Your task to perform on an android device: Show me the best rated coffee table on Ikea Image 0: 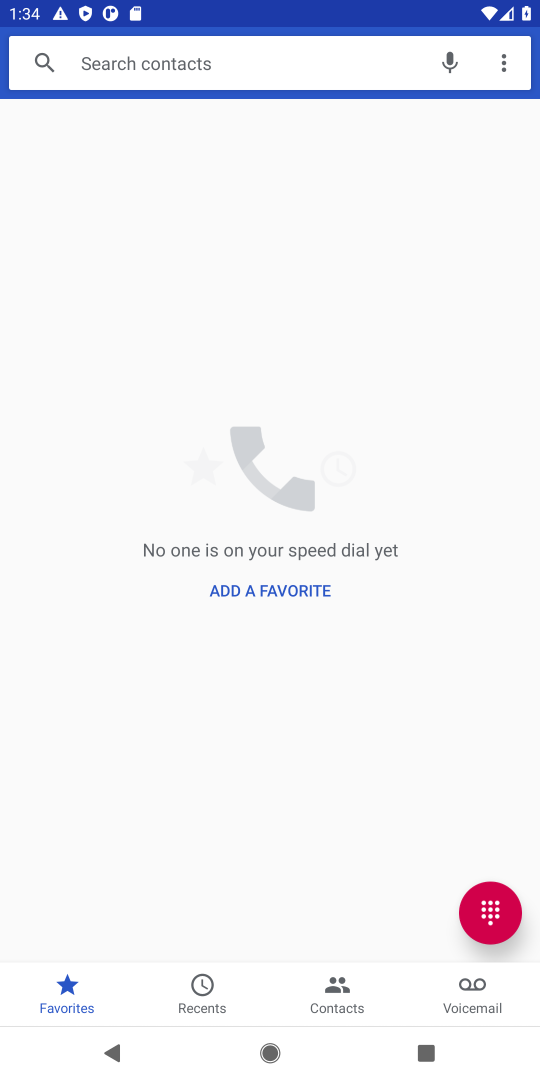
Step 0: press home button
Your task to perform on an android device: Show me the best rated coffee table on Ikea Image 1: 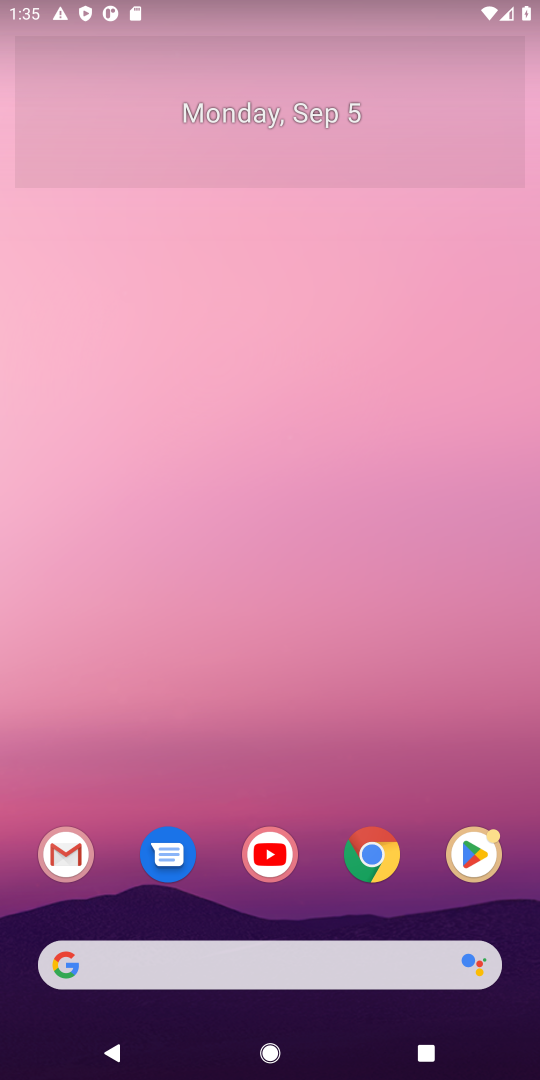
Step 1: click (362, 959)
Your task to perform on an android device: Show me the best rated coffee table on Ikea Image 2: 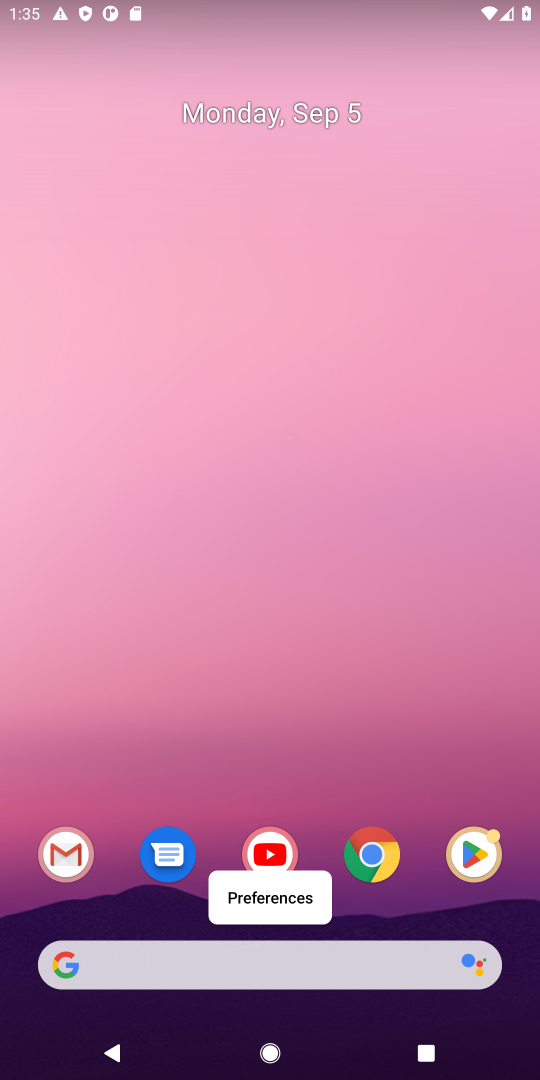
Step 2: click (226, 976)
Your task to perform on an android device: Show me the best rated coffee table on Ikea Image 3: 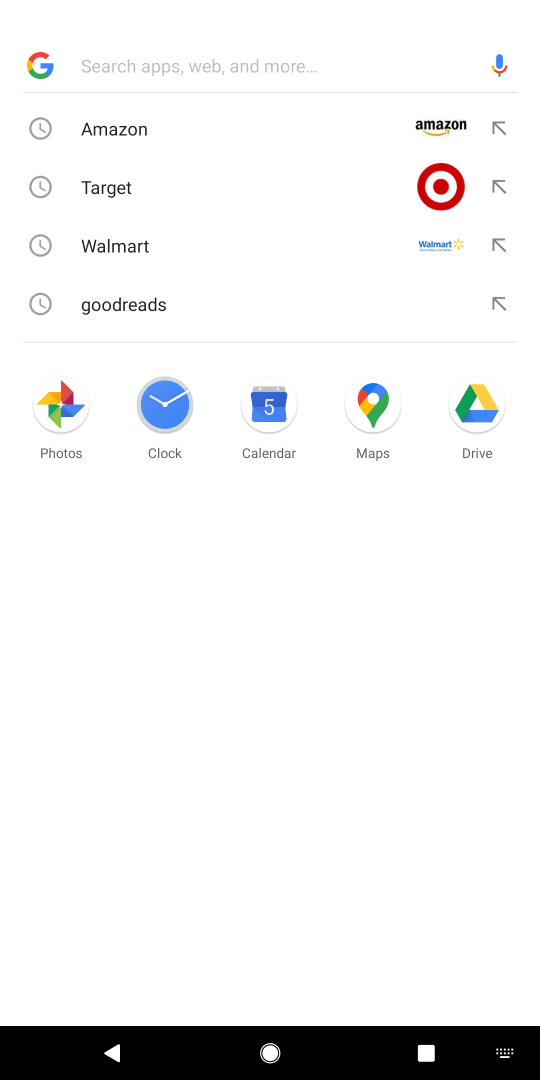
Step 3: type "ikea"
Your task to perform on an android device: Show me the best rated coffee table on Ikea Image 4: 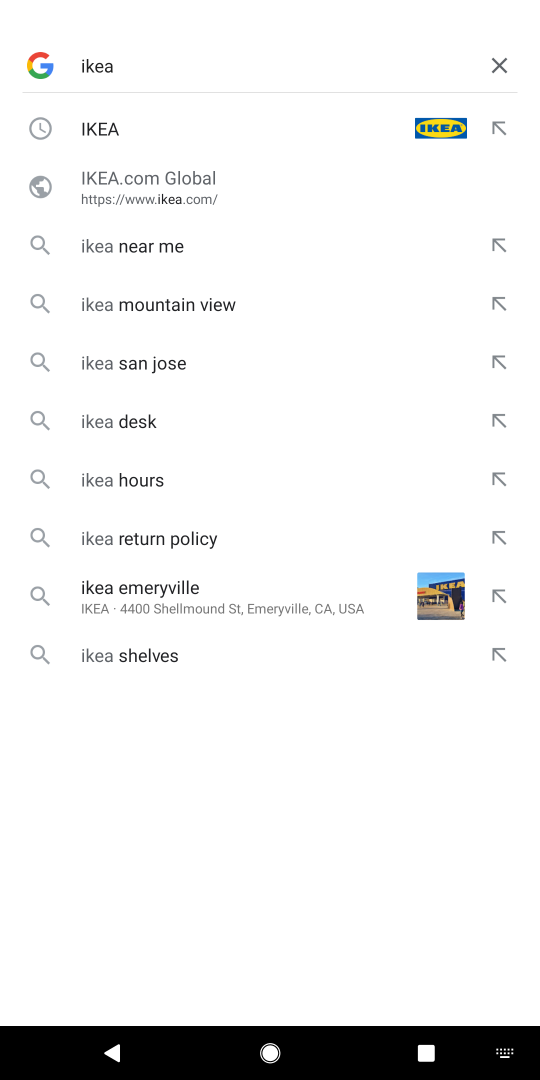
Step 4: press enter
Your task to perform on an android device: Show me the best rated coffee table on Ikea Image 5: 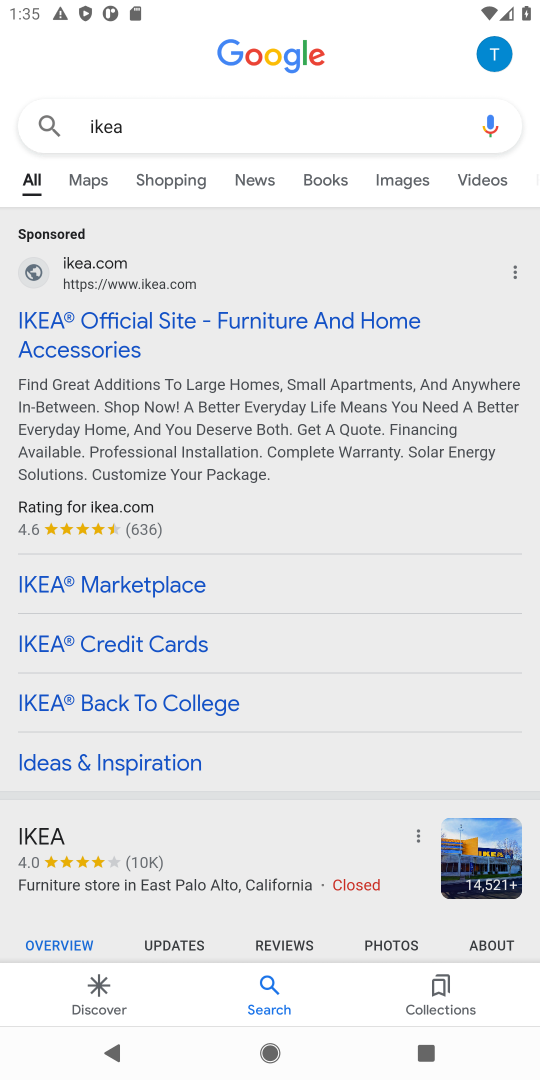
Step 5: click (171, 325)
Your task to perform on an android device: Show me the best rated coffee table on Ikea Image 6: 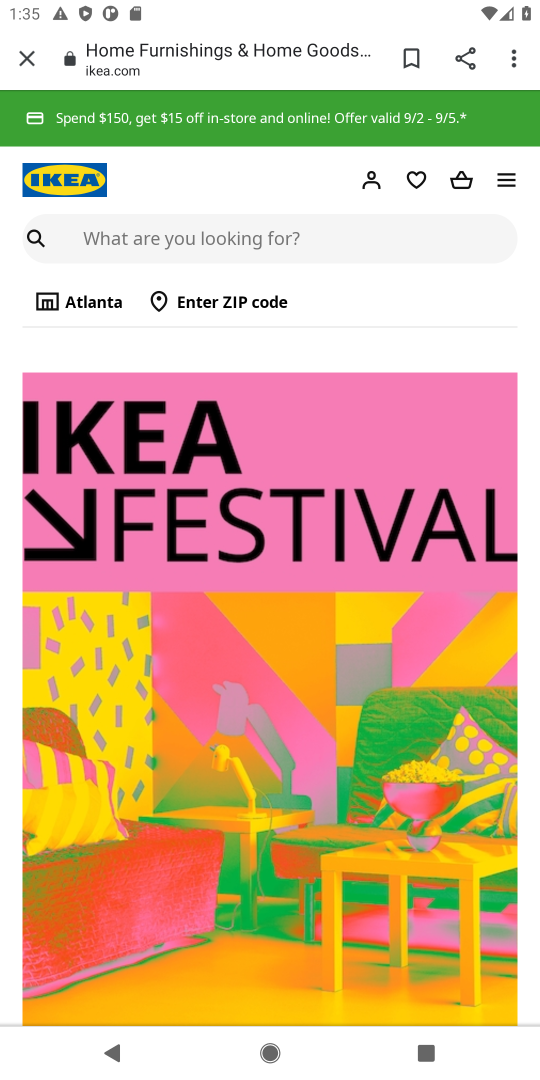
Step 6: click (267, 229)
Your task to perform on an android device: Show me the best rated coffee table on Ikea Image 7: 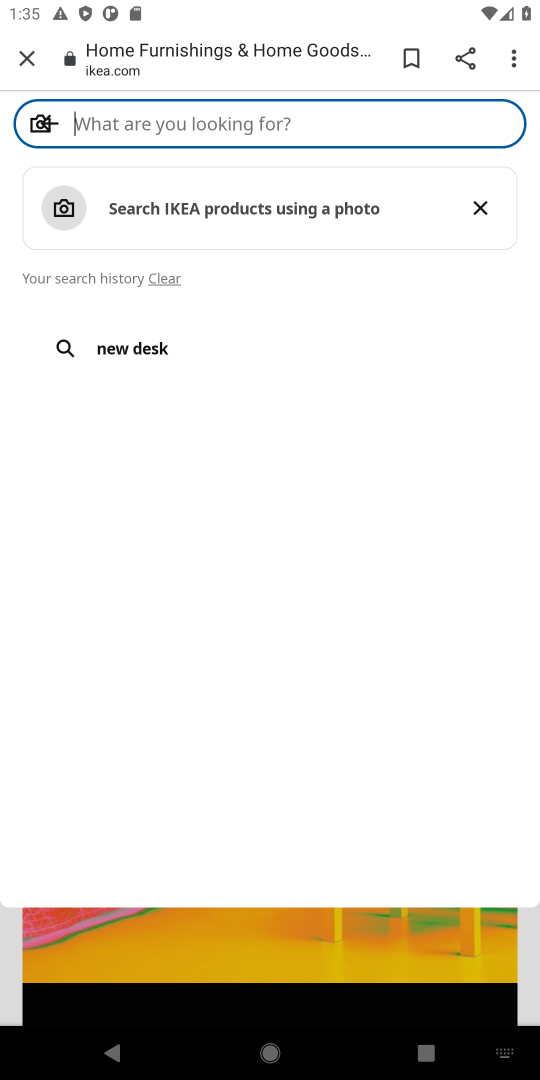
Step 7: press enter
Your task to perform on an android device: Show me the best rated coffee table on Ikea Image 8: 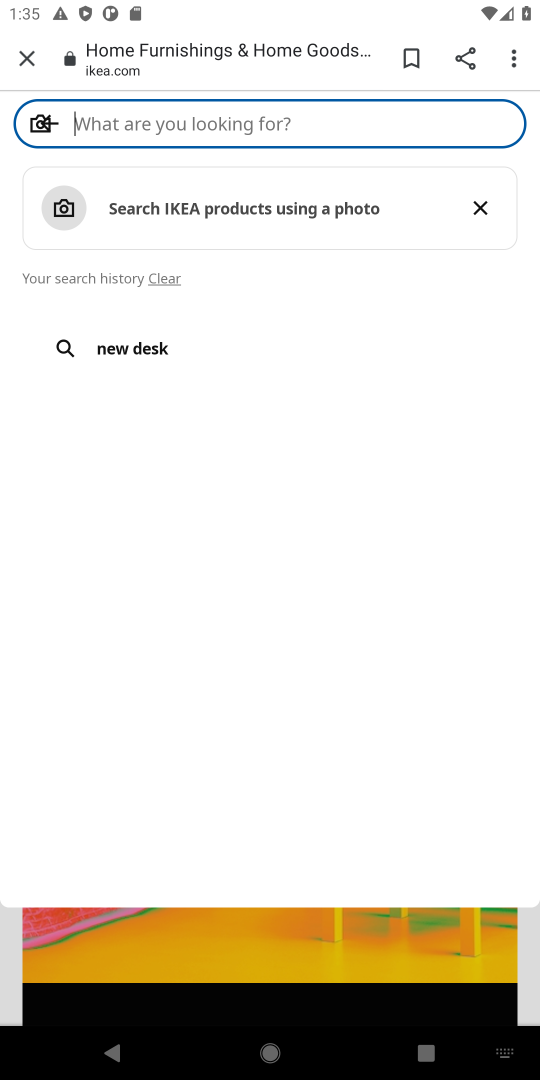
Step 8: type "best rated coffee table"
Your task to perform on an android device: Show me the best rated coffee table on Ikea Image 9: 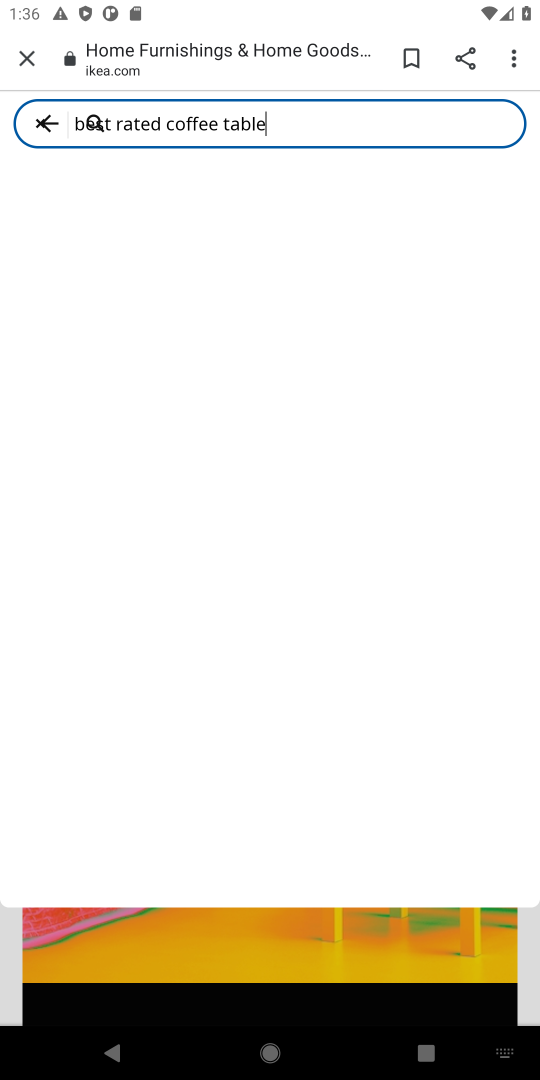
Step 9: click (42, 118)
Your task to perform on an android device: Show me the best rated coffee table on Ikea Image 10: 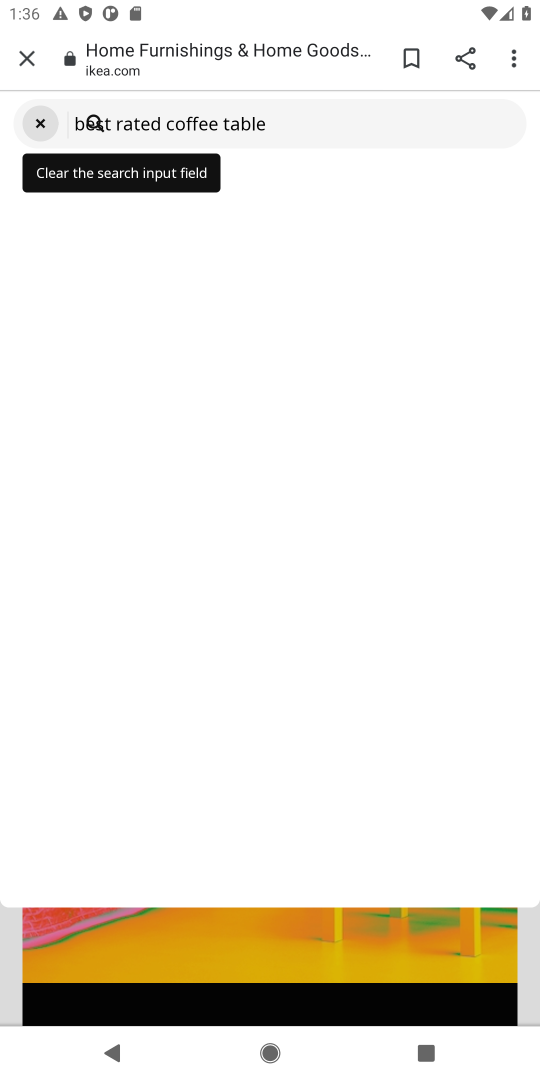
Step 10: task complete